Your task to perform on an android device: stop showing notifications on the lock screen Image 0: 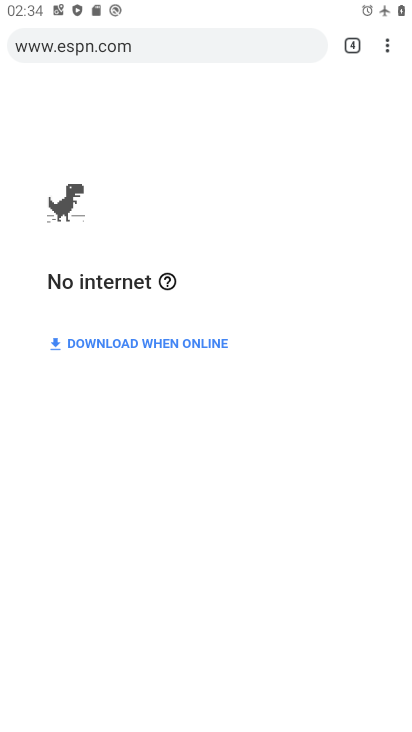
Step 0: press home button
Your task to perform on an android device: stop showing notifications on the lock screen Image 1: 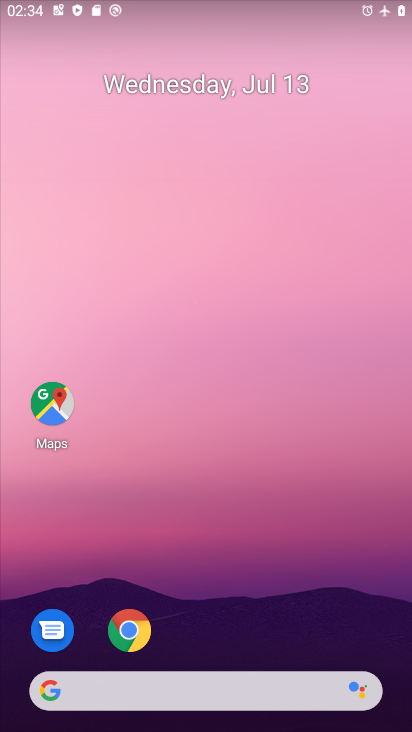
Step 1: drag from (213, 637) to (213, 202)
Your task to perform on an android device: stop showing notifications on the lock screen Image 2: 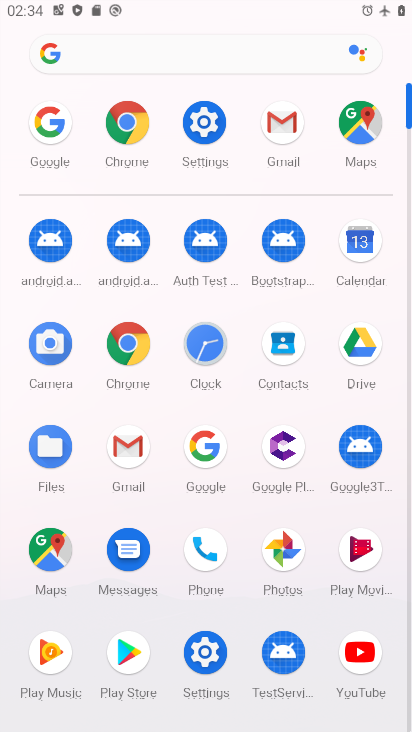
Step 2: click (208, 131)
Your task to perform on an android device: stop showing notifications on the lock screen Image 3: 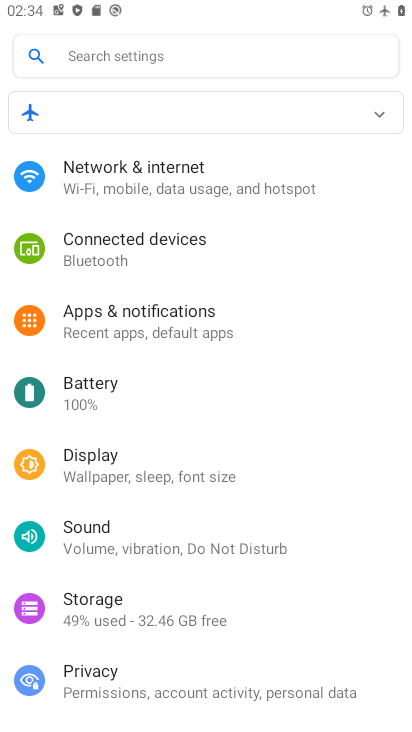
Step 3: click (177, 308)
Your task to perform on an android device: stop showing notifications on the lock screen Image 4: 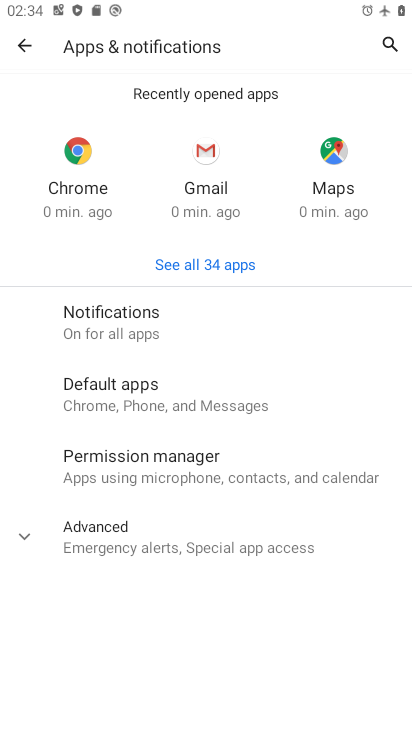
Step 4: click (177, 308)
Your task to perform on an android device: stop showing notifications on the lock screen Image 5: 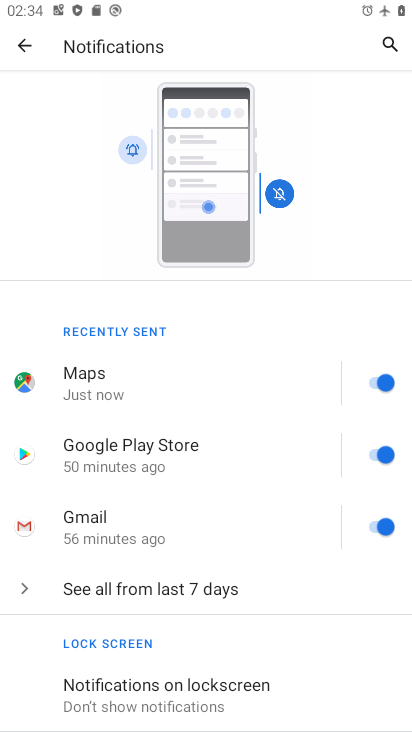
Step 5: drag from (197, 671) to (189, 483)
Your task to perform on an android device: stop showing notifications on the lock screen Image 6: 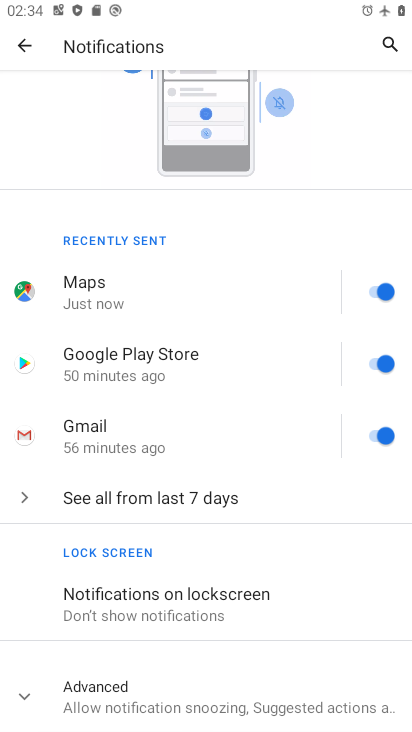
Step 6: click (186, 579)
Your task to perform on an android device: stop showing notifications on the lock screen Image 7: 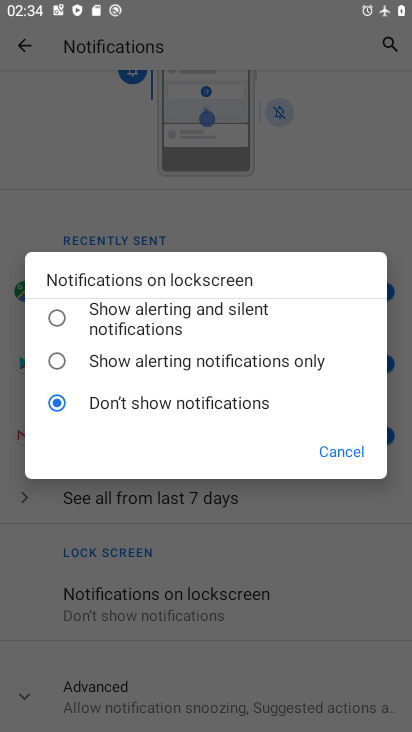
Step 7: task complete